Your task to perform on an android device: Open ESPN.com Image 0: 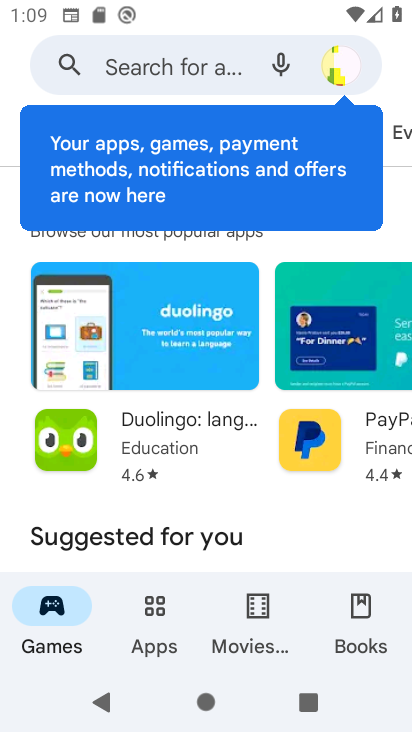
Step 0: press home button
Your task to perform on an android device: Open ESPN.com Image 1: 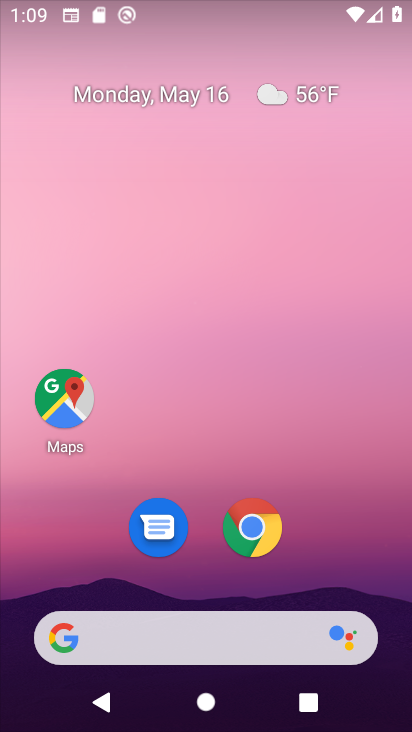
Step 1: click (250, 533)
Your task to perform on an android device: Open ESPN.com Image 2: 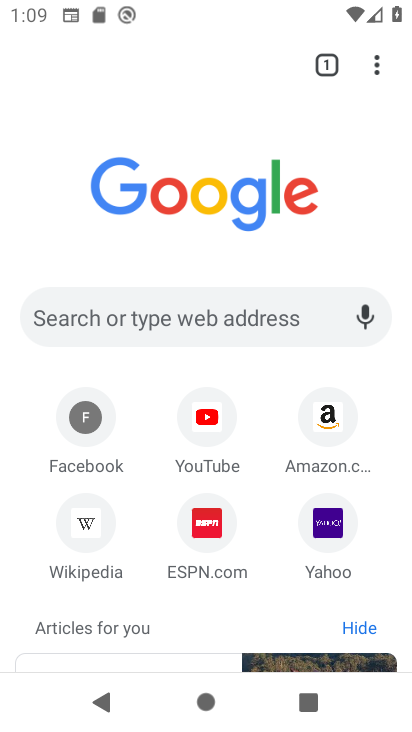
Step 2: click (206, 525)
Your task to perform on an android device: Open ESPN.com Image 3: 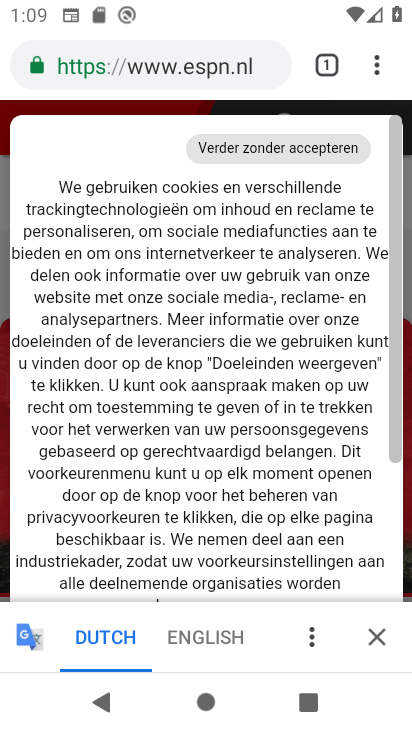
Step 3: task complete